Your task to perform on an android device: Go to accessibility settings Image 0: 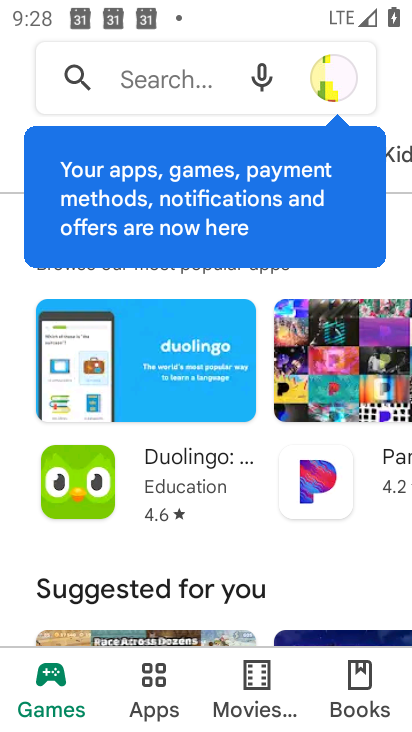
Step 0: press back button
Your task to perform on an android device: Go to accessibility settings Image 1: 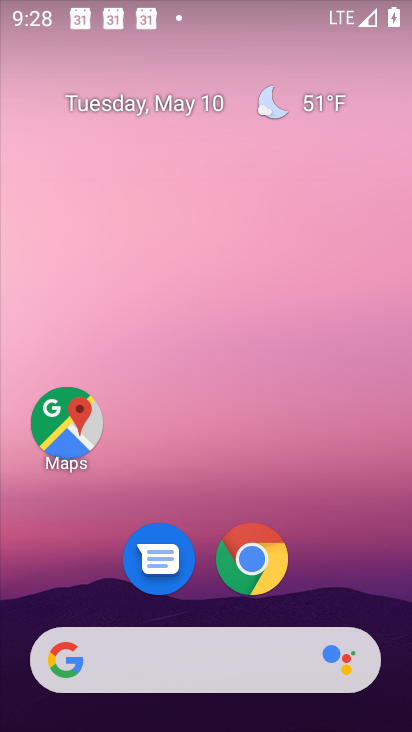
Step 1: drag from (303, 494) to (246, 39)
Your task to perform on an android device: Go to accessibility settings Image 2: 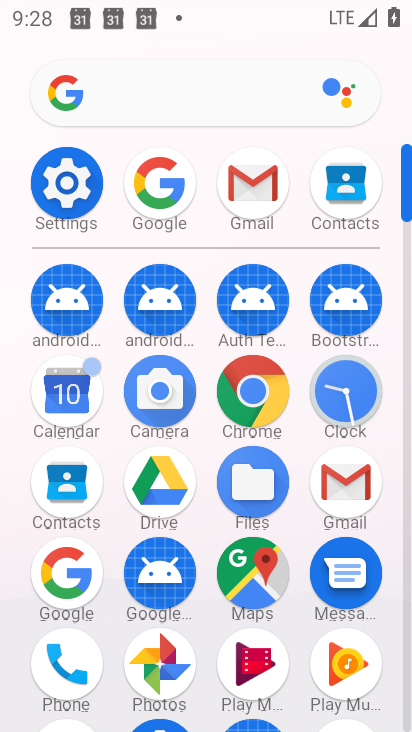
Step 2: click (68, 182)
Your task to perform on an android device: Go to accessibility settings Image 3: 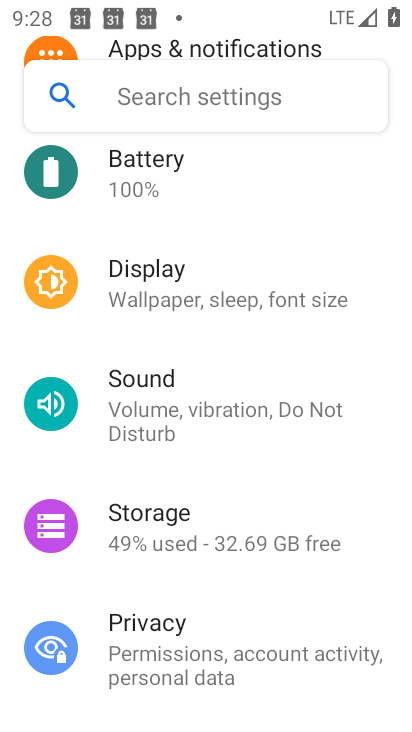
Step 3: drag from (145, 353) to (230, 239)
Your task to perform on an android device: Go to accessibility settings Image 4: 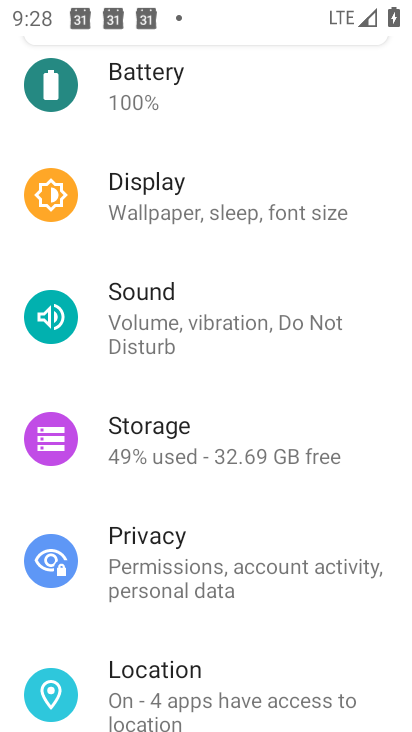
Step 4: drag from (138, 494) to (221, 346)
Your task to perform on an android device: Go to accessibility settings Image 5: 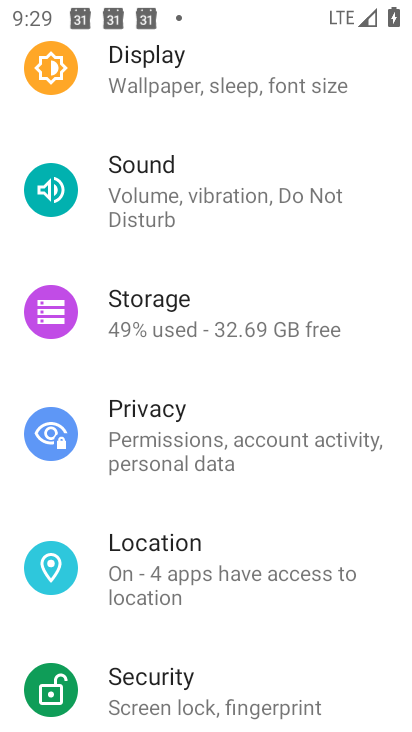
Step 5: drag from (167, 507) to (234, 401)
Your task to perform on an android device: Go to accessibility settings Image 6: 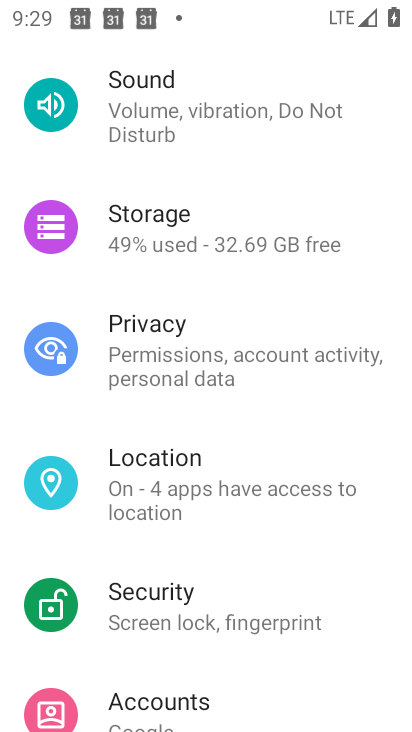
Step 6: drag from (143, 657) to (267, 434)
Your task to perform on an android device: Go to accessibility settings Image 7: 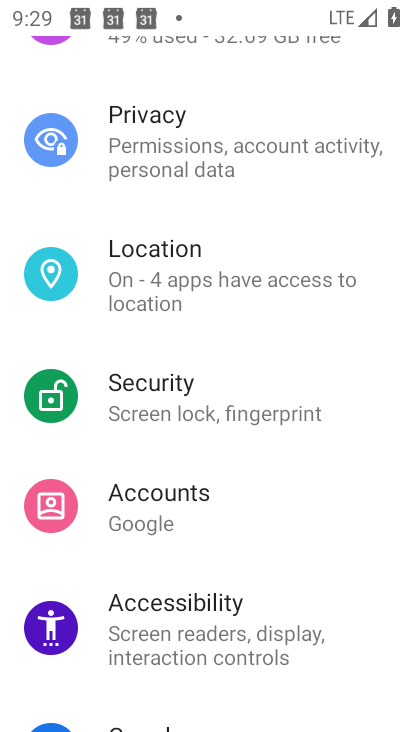
Step 7: click (166, 608)
Your task to perform on an android device: Go to accessibility settings Image 8: 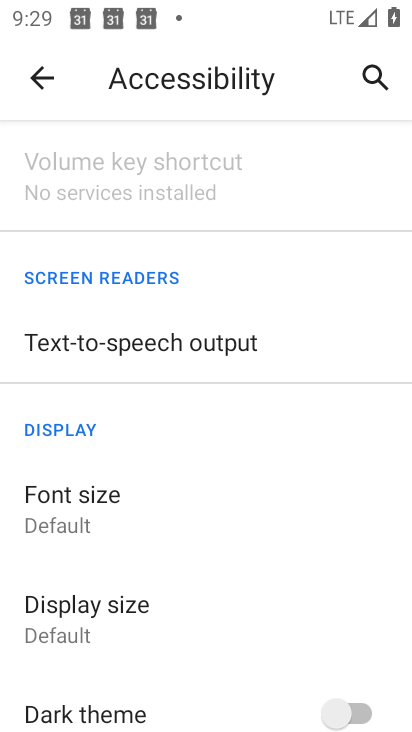
Step 8: task complete